Your task to perform on an android device: remove spam from my inbox in the gmail app Image 0: 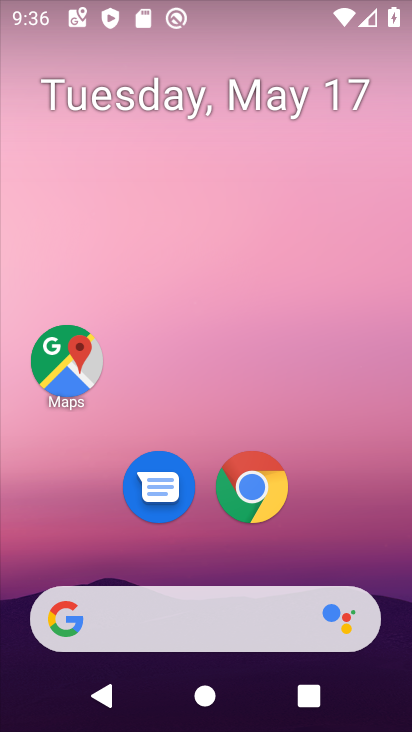
Step 0: press home button
Your task to perform on an android device: remove spam from my inbox in the gmail app Image 1: 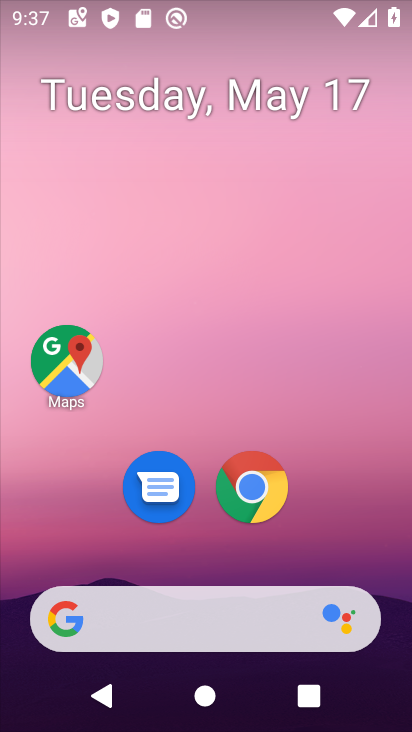
Step 1: drag from (235, 640) to (338, 221)
Your task to perform on an android device: remove spam from my inbox in the gmail app Image 2: 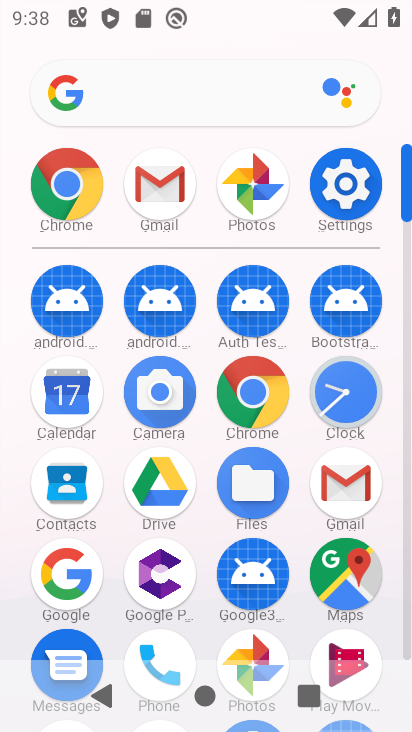
Step 2: click (155, 163)
Your task to perform on an android device: remove spam from my inbox in the gmail app Image 3: 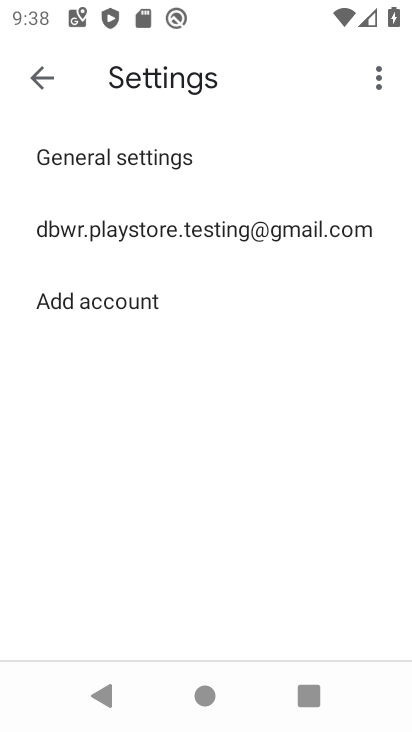
Step 3: click (38, 84)
Your task to perform on an android device: remove spam from my inbox in the gmail app Image 4: 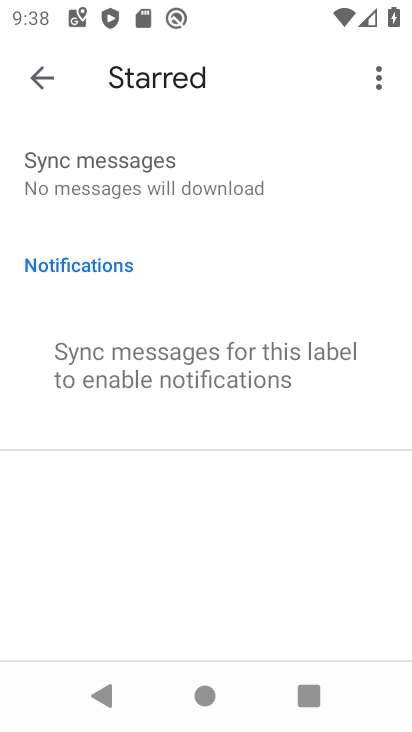
Step 4: click (45, 93)
Your task to perform on an android device: remove spam from my inbox in the gmail app Image 5: 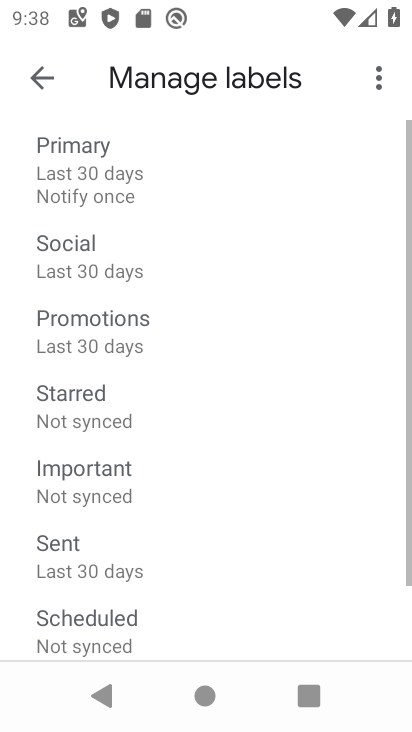
Step 5: click (45, 93)
Your task to perform on an android device: remove spam from my inbox in the gmail app Image 6: 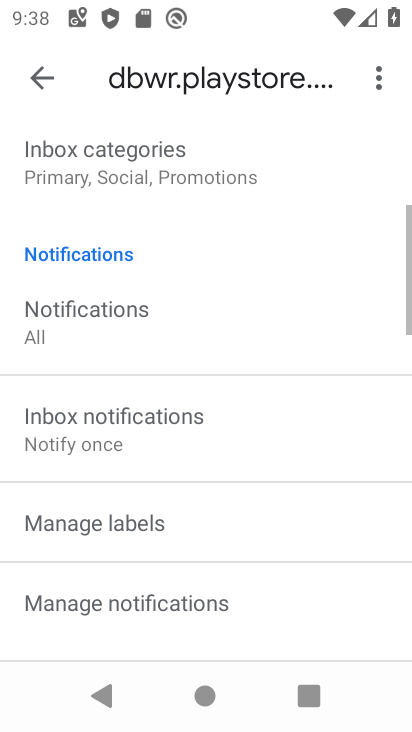
Step 6: click (41, 93)
Your task to perform on an android device: remove spam from my inbox in the gmail app Image 7: 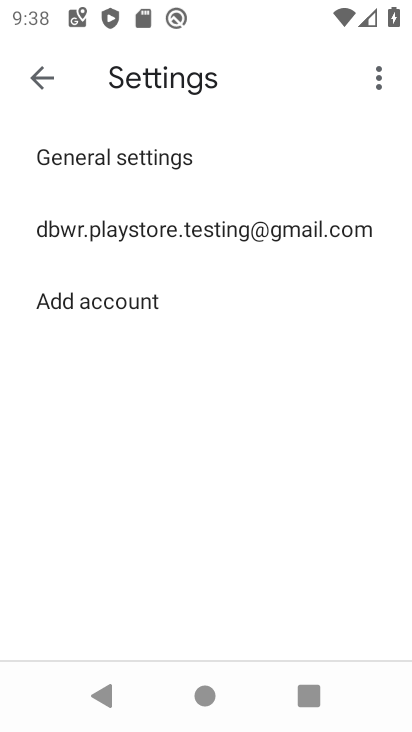
Step 7: click (40, 93)
Your task to perform on an android device: remove spam from my inbox in the gmail app Image 8: 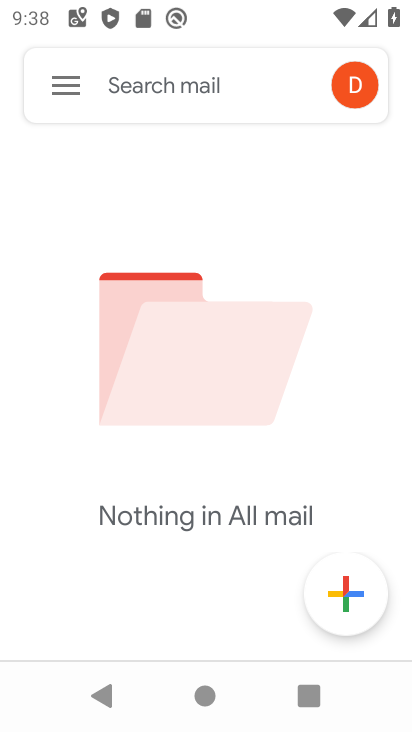
Step 8: click (40, 93)
Your task to perform on an android device: remove spam from my inbox in the gmail app Image 9: 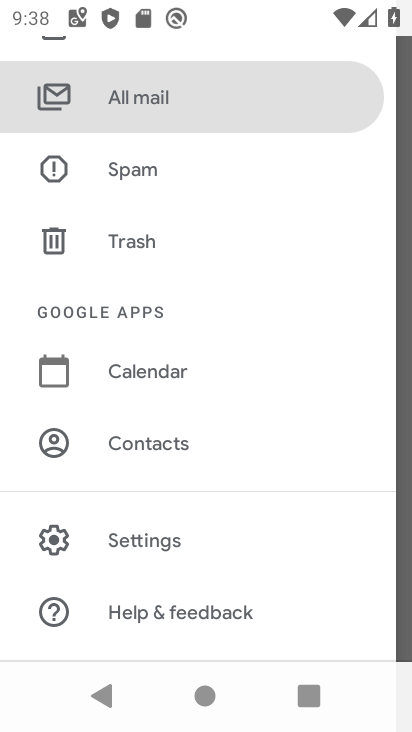
Step 9: click (143, 183)
Your task to perform on an android device: remove spam from my inbox in the gmail app Image 10: 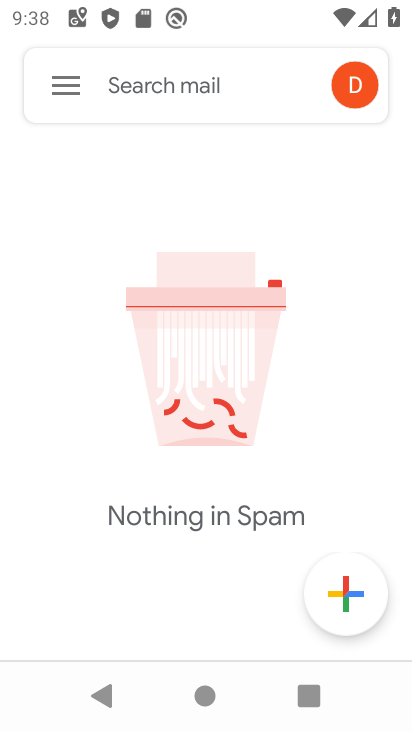
Step 10: task complete